Your task to perform on an android device: turn off picture-in-picture Image 0: 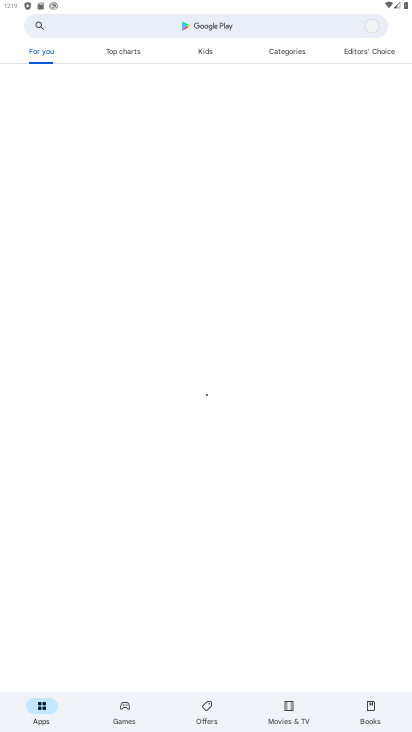
Step 0: press home button
Your task to perform on an android device: turn off picture-in-picture Image 1: 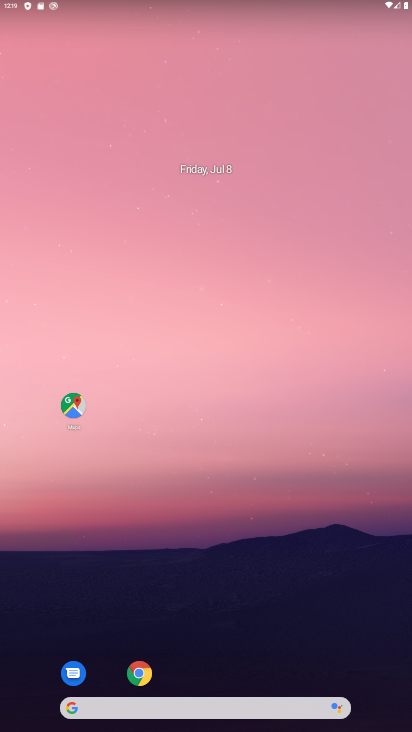
Step 1: click (138, 670)
Your task to perform on an android device: turn off picture-in-picture Image 2: 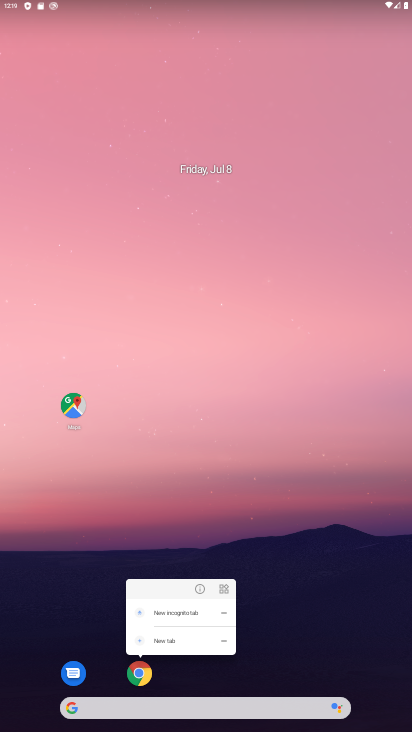
Step 2: click (195, 587)
Your task to perform on an android device: turn off picture-in-picture Image 3: 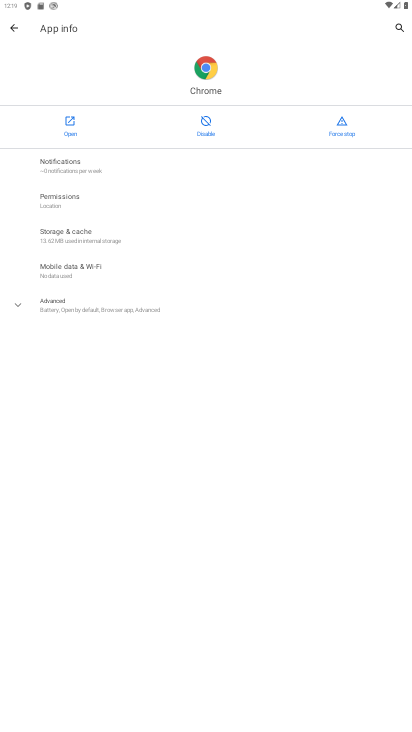
Step 3: click (75, 302)
Your task to perform on an android device: turn off picture-in-picture Image 4: 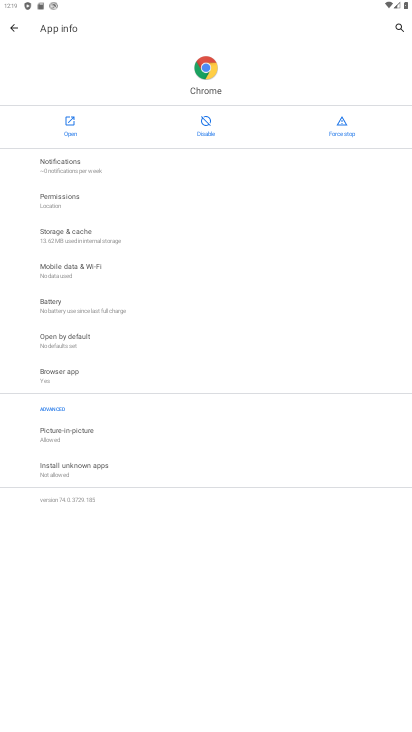
Step 4: click (105, 441)
Your task to perform on an android device: turn off picture-in-picture Image 5: 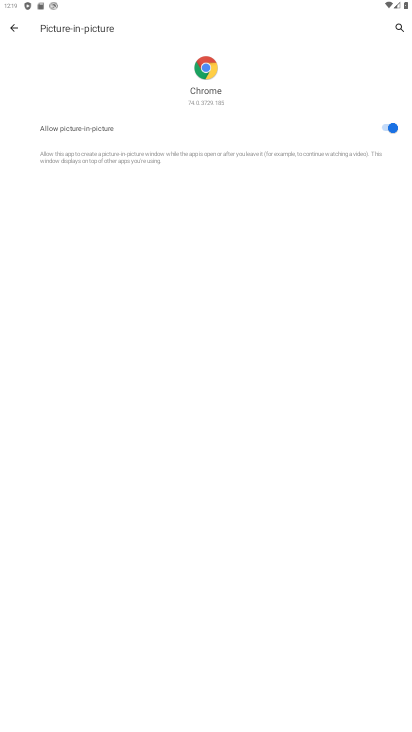
Step 5: click (397, 130)
Your task to perform on an android device: turn off picture-in-picture Image 6: 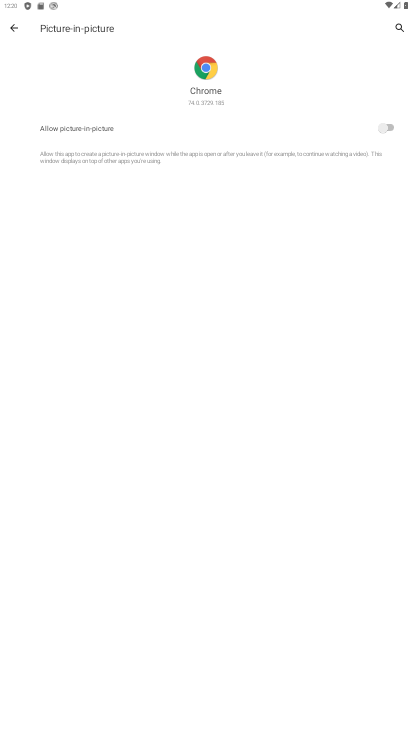
Step 6: task complete